Your task to perform on an android device: turn pop-ups on in chrome Image 0: 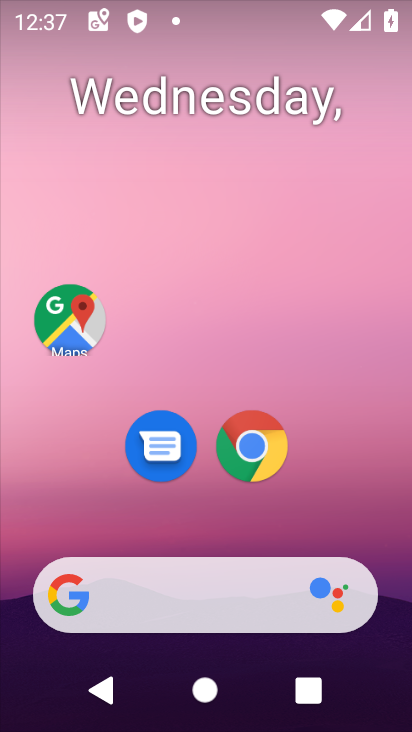
Step 0: drag from (214, 525) to (236, 125)
Your task to perform on an android device: turn pop-ups on in chrome Image 1: 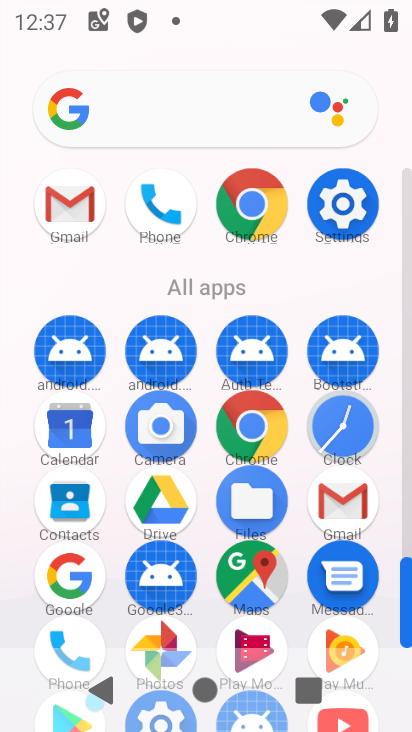
Step 1: drag from (190, 295) to (211, 34)
Your task to perform on an android device: turn pop-ups on in chrome Image 2: 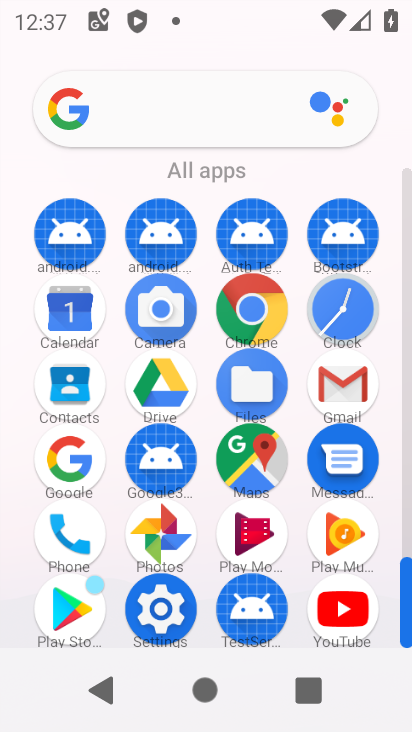
Step 2: click (252, 306)
Your task to perform on an android device: turn pop-ups on in chrome Image 3: 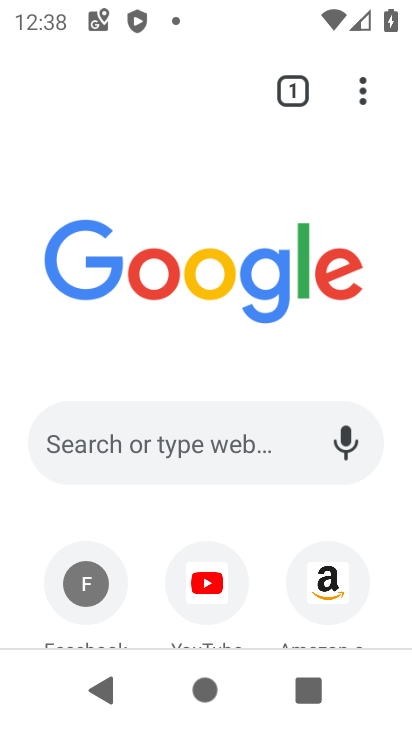
Step 3: click (360, 96)
Your task to perform on an android device: turn pop-ups on in chrome Image 4: 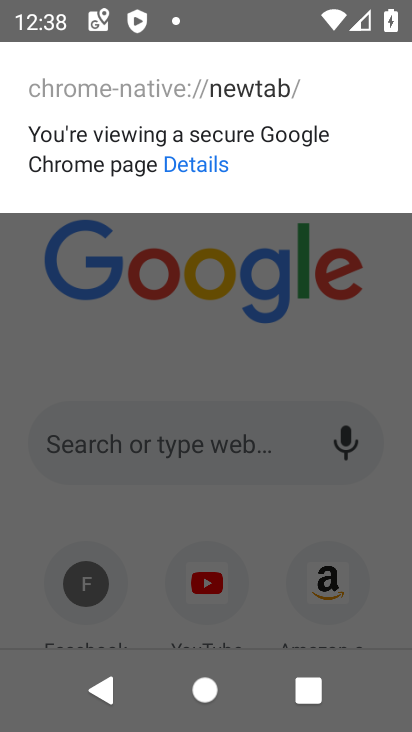
Step 4: click (348, 322)
Your task to perform on an android device: turn pop-ups on in chrome Image 5: 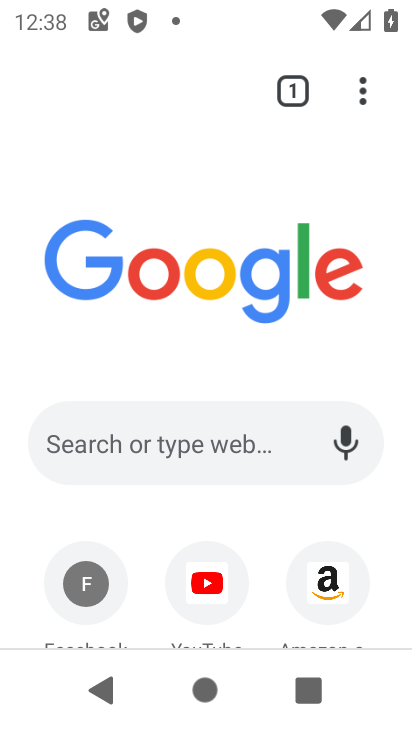
Step 5: click (374, 105)
Your task to perform on an android device: turn pop-ups on in chrome Image 6: 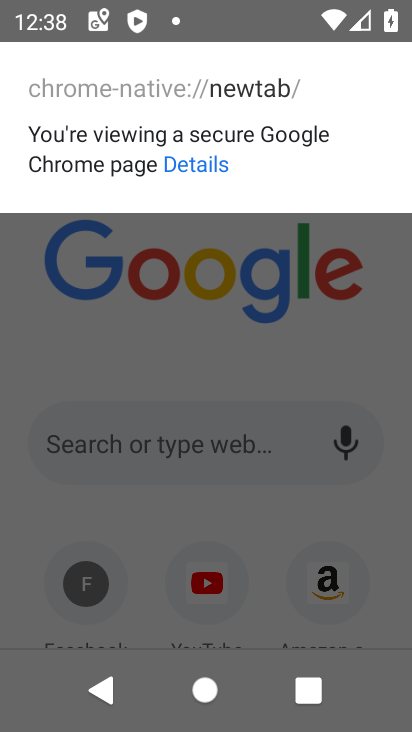
Step 6: task complete